Your task to perform on an android device: toggle airplane mode Image 0: 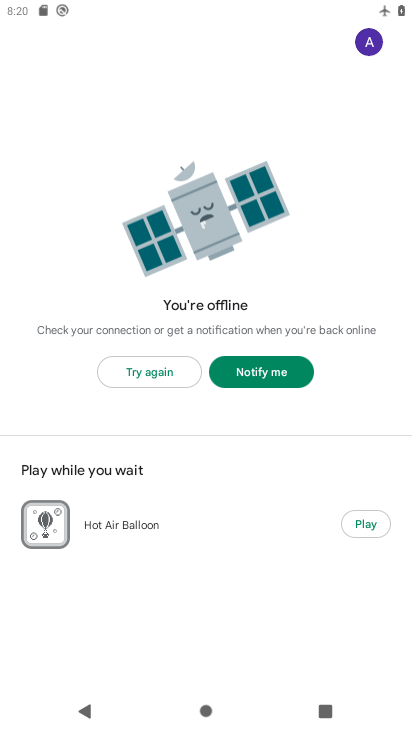
Step 0: drag from (276, 4) to (255, 587)
Your task to perform on an android device: toggle airplane mode Image 1: 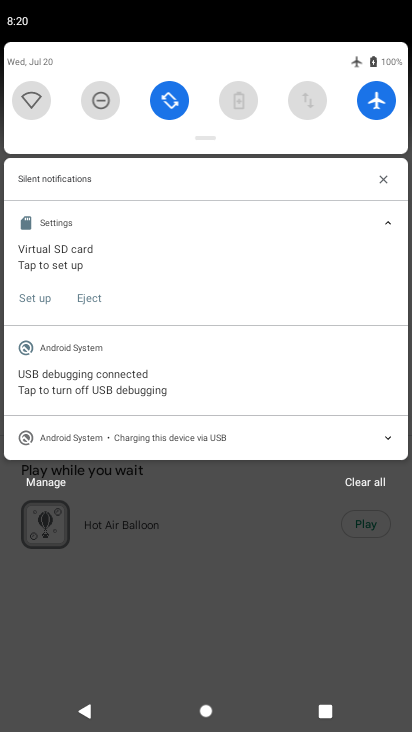
Step 1: click (379, 102)
Your task to perform on an android device: toggle airplane mode Image 2: 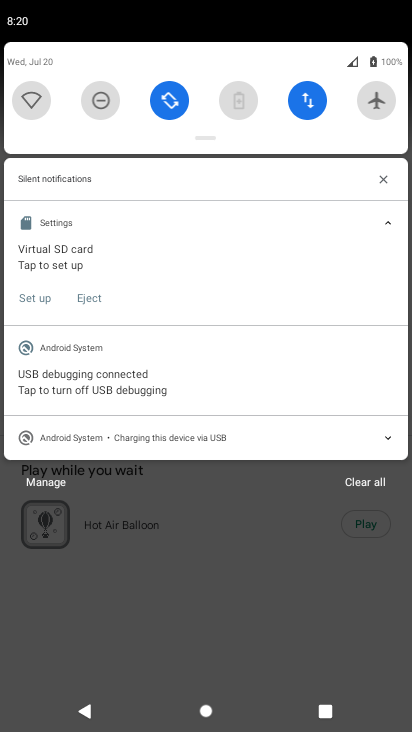
Step 2: task complete